Your task to perform on an android device: open app "Cash App" (install if not already installed) Image 0: 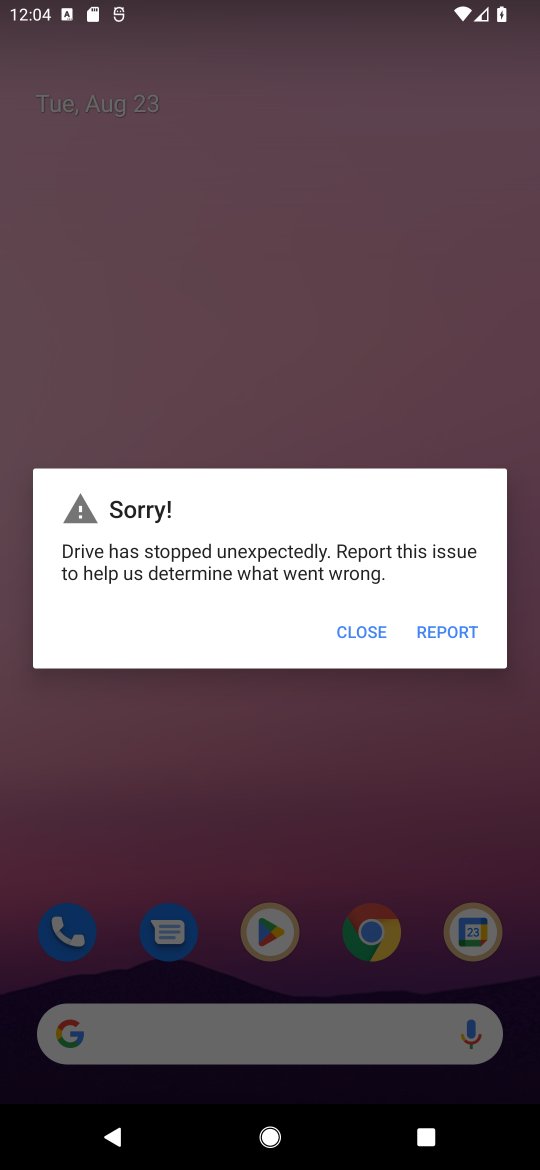
Step 0: click (273, 937)
Your task to perform on an android device: open app "Cash App" (install if not already installed) Image 1: 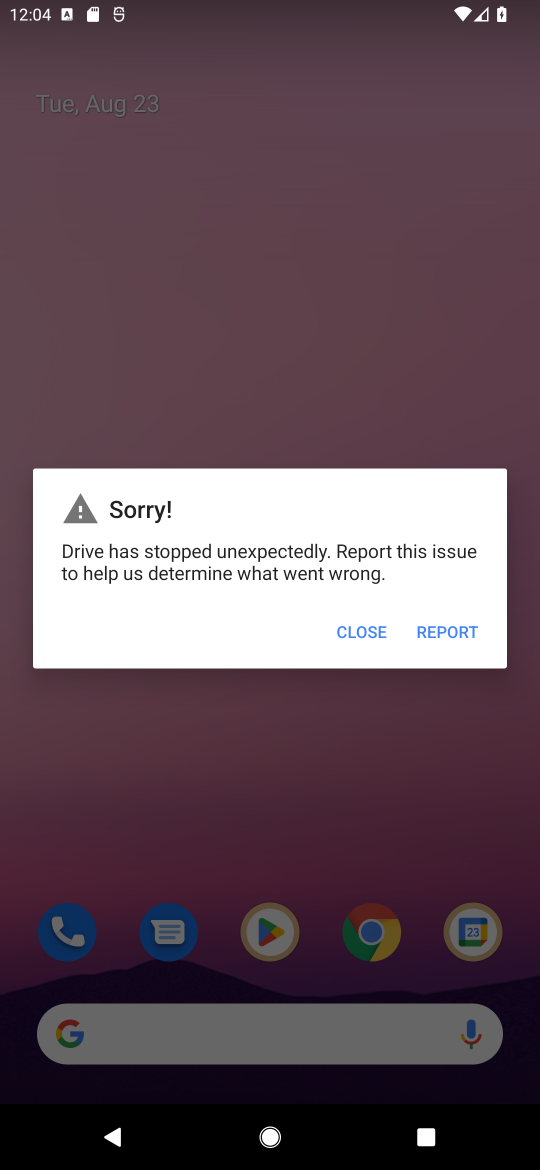
Step 1: click (349, 624)
Your task to perform on an android device: open app "Cash App" (install if not already installed) Image 2: 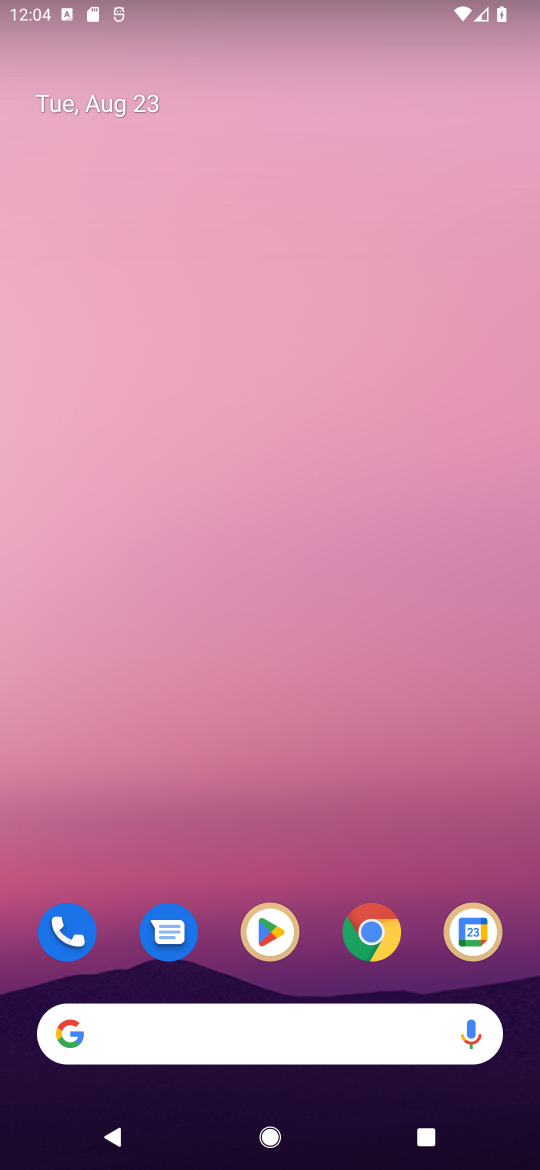
Step 2: click (275, 940)
Your task to perform on an android device: open app "Cash App" (install if not already installed) Image 3: 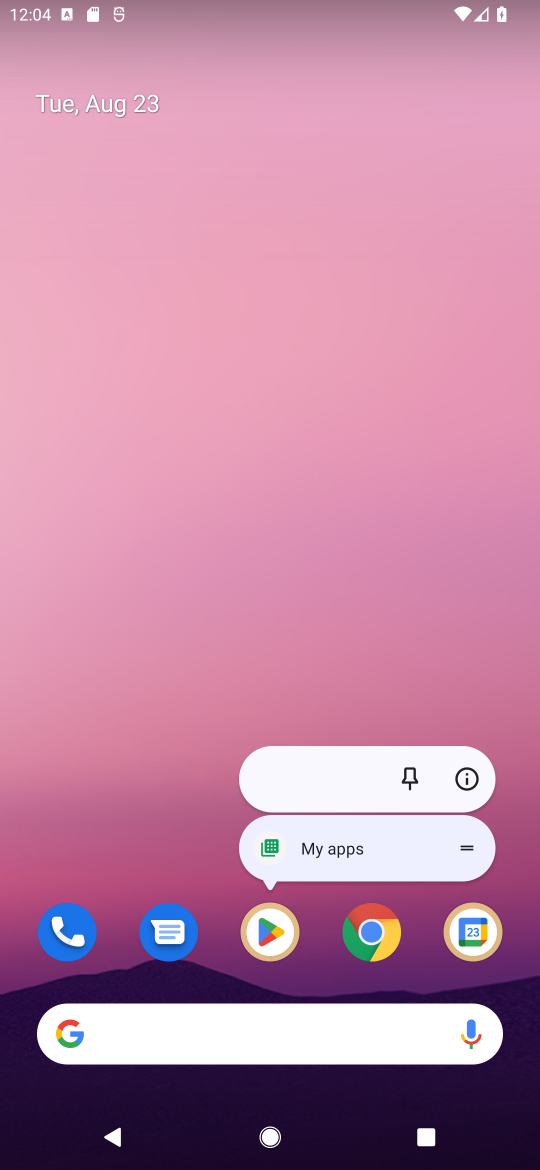
Step 3: click (269, 934)
Your task to perform on an android device: open app "Cash App" (install if not already installed) Image 4: 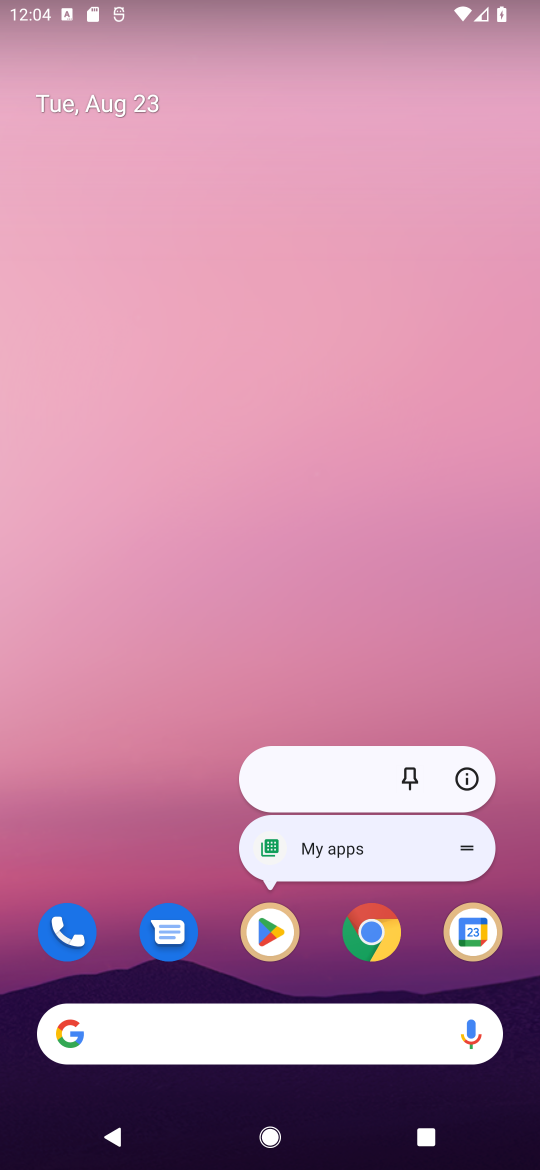
Step 4: click (265, 926)
Your task to perform on an android device: open app "Cash App" (install if not already installed) Image 5: 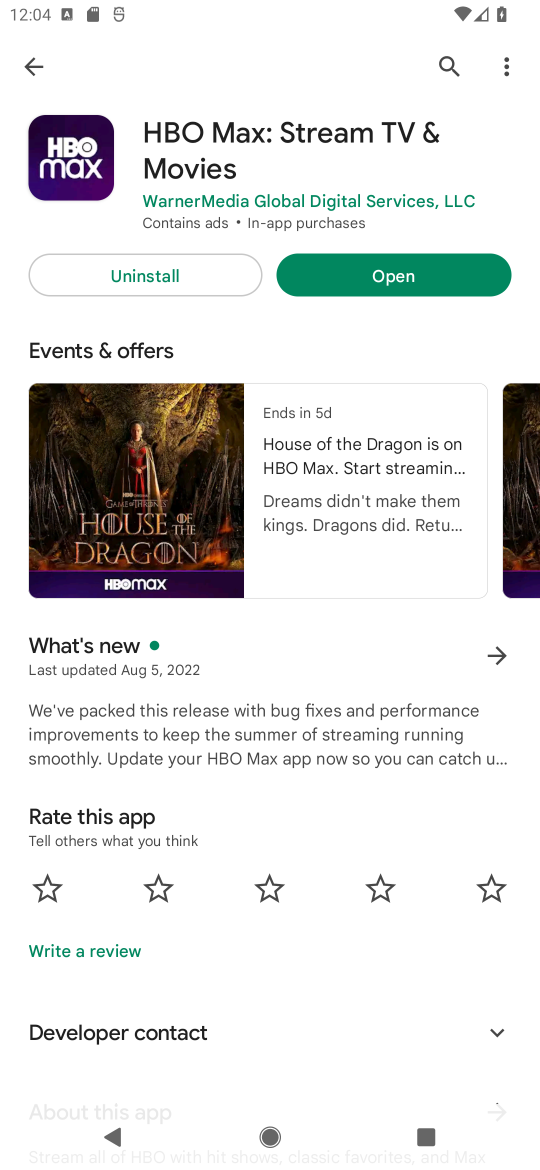
Step 5: click (445, 48)
Your task to perform on an android device: open app "Cash App" (install if not already installed) Image 6: 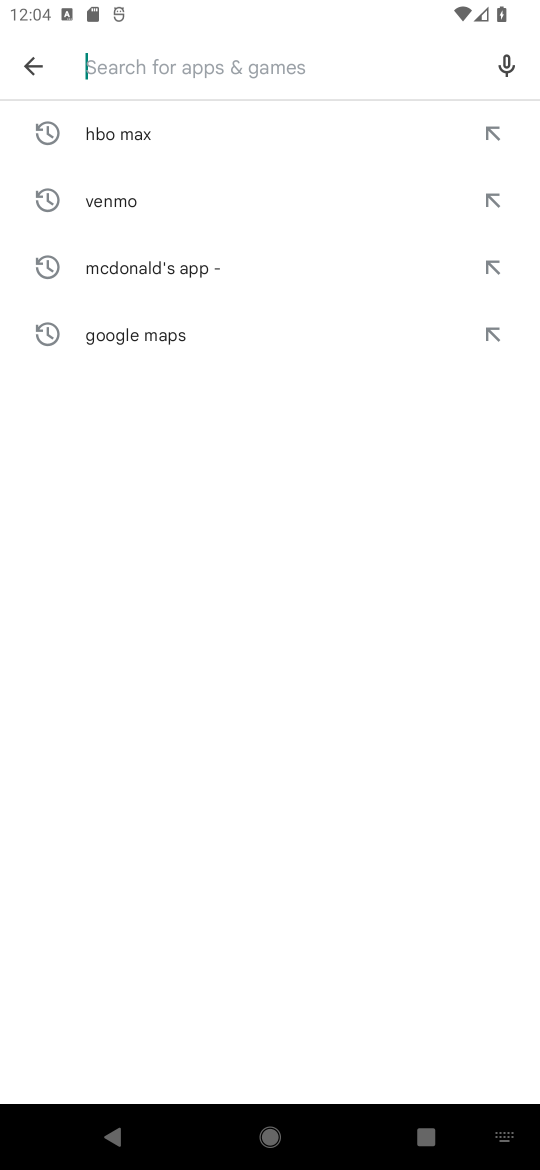
Step 6: click (131, 62)
Your task to perform on an android device: open app "Cash App" (install if not already installed) Image 7: 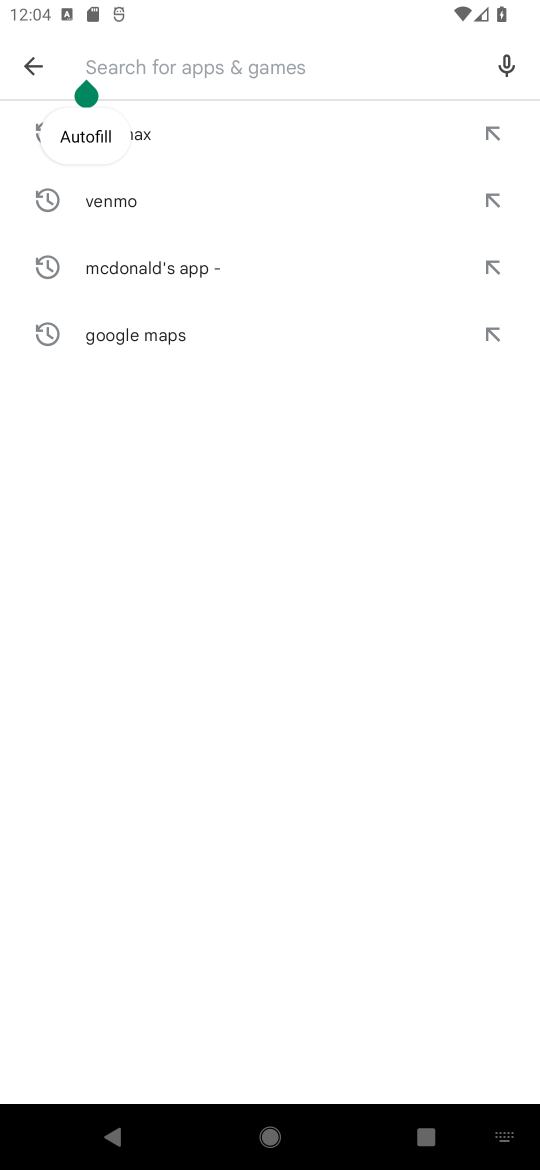
Step 7: type "Cash App"
Your task to perform on an android device: open app "Cash App" (install if not already installed) Image 8: 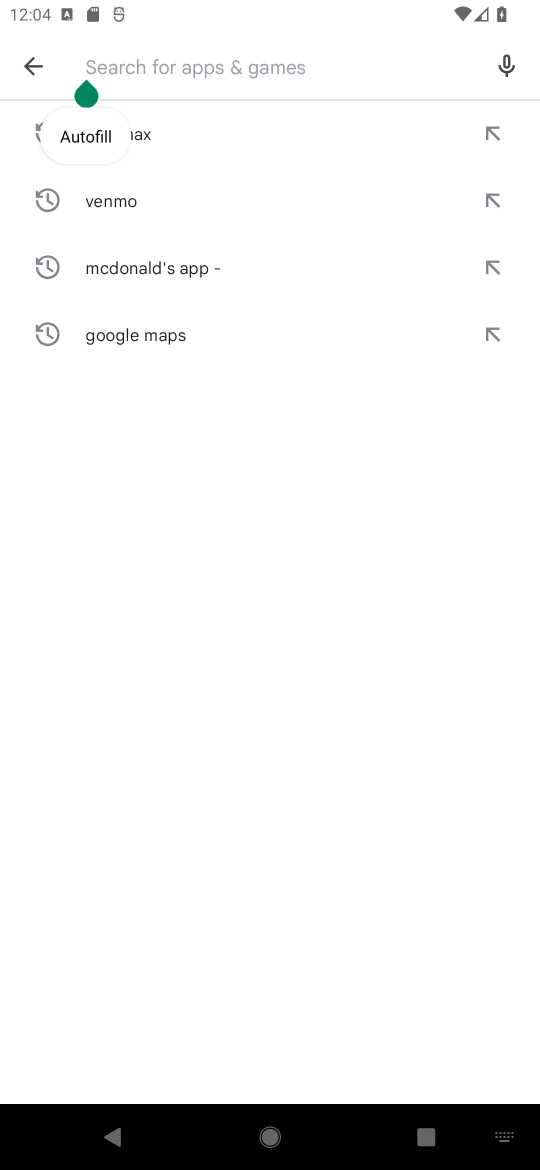
Step 8: click (348, 803)
Your task to perform on an android device: open app "Cash App" (install if not already installed) Image 9: 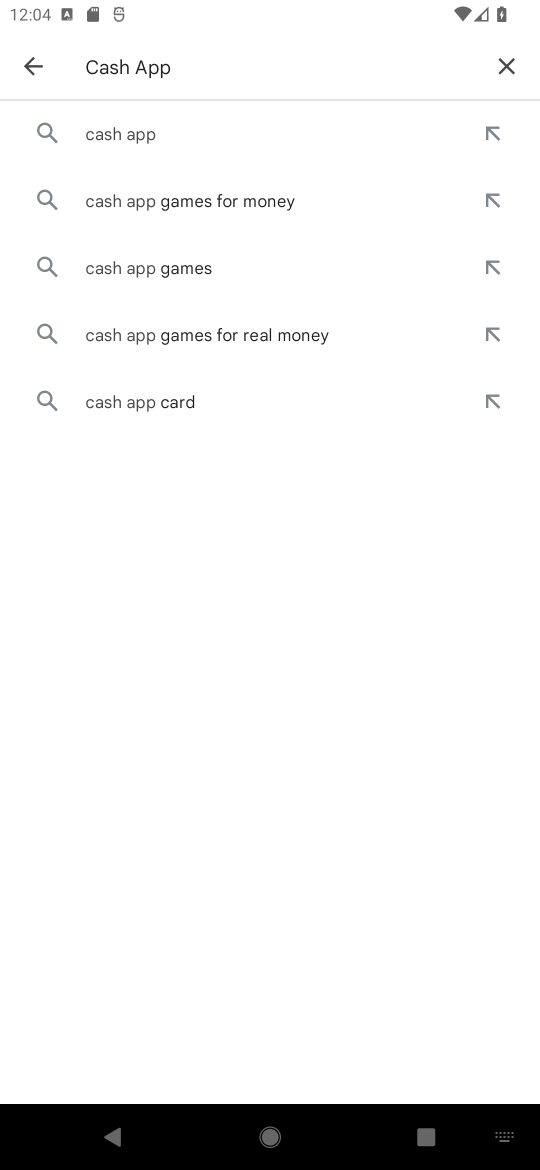
Step 9: click (155, 128)
Your task to perform on an android device: open app "Cash App" (install if not already installed) Image 10: 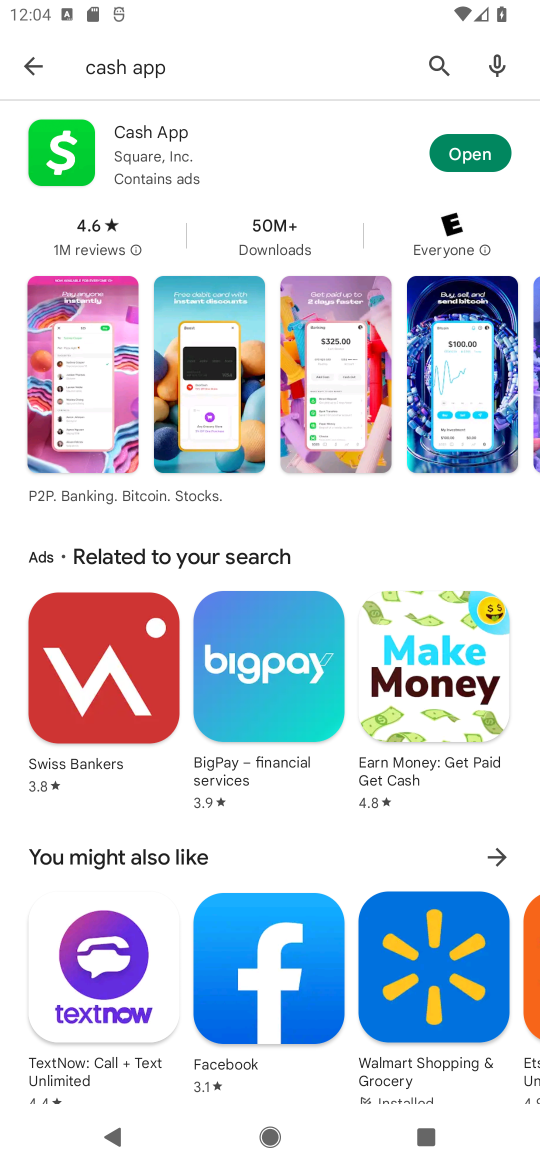
Step 10: click (448, 153)
Your task to perform on an android device: open app "Cash App" (install if not already installed) Image 11: 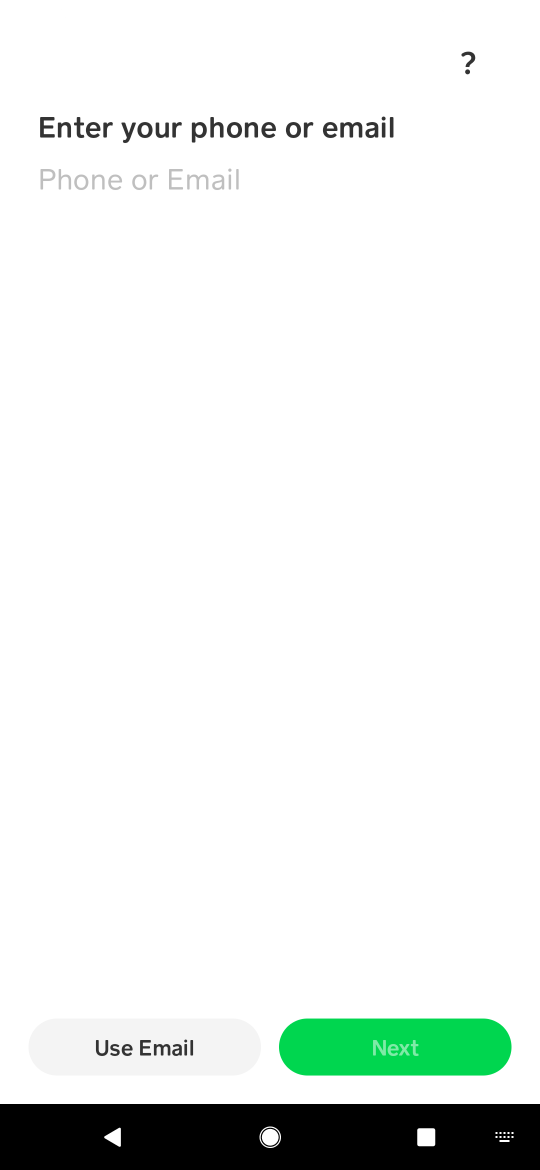
Step 11: task complete